Your task to perform on an android device: turn on airplane mode Image 0: 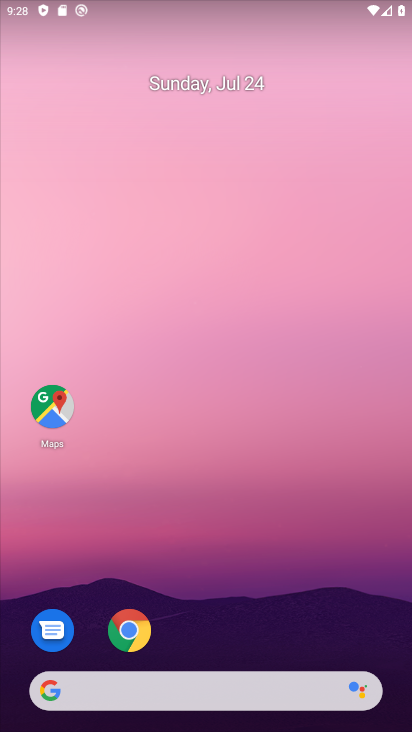
Step 0: drag from (193, 651) to (194, 151)
Your task to perform on an android device: turn on airplane mode Image 1: 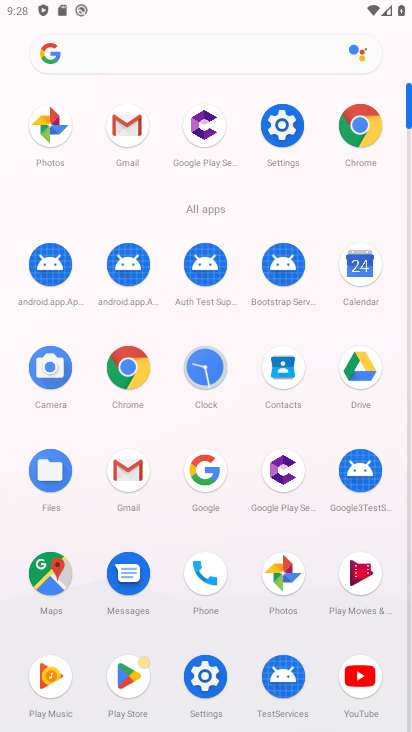
Step 1: click (270, 130)
Your task to perform on an android device: turn on airplane mode Image 2: 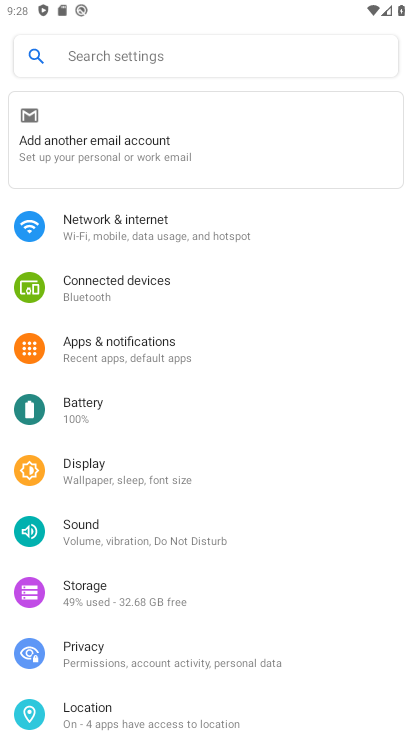
Step 2: click (159, 230)
Your task to perform on an android device: turn on airplane mode Image 3: 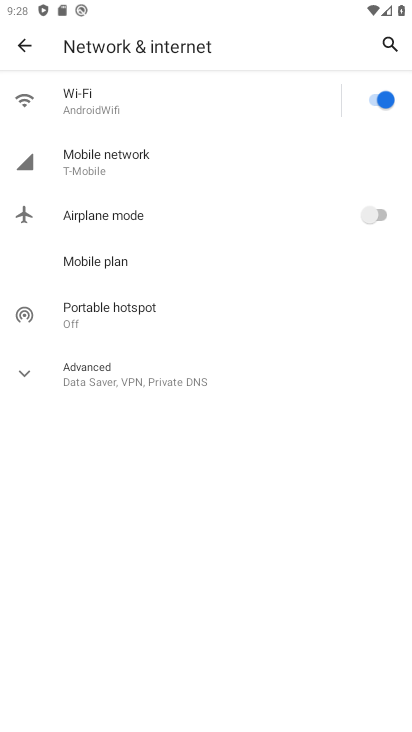
Step 3: click (386, 217)
Your task to perform on an android device: turn on airplane mode Image 4: 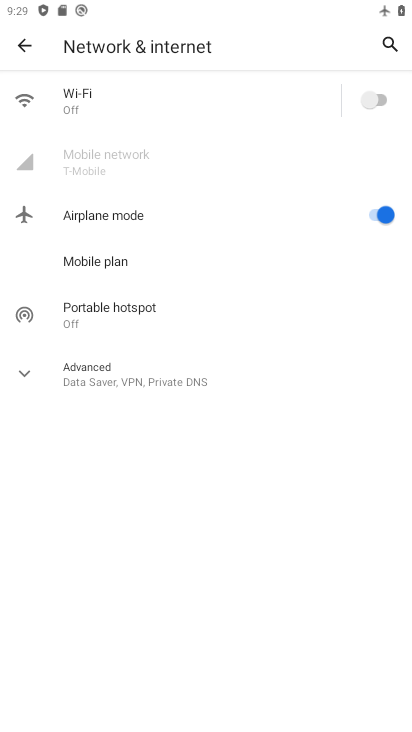
Step 4: task complete